Your task to perform on an android device: Search for "usb-a to usb-b" on ebay.com, select the first entry, and add it to the cart. Image 0: 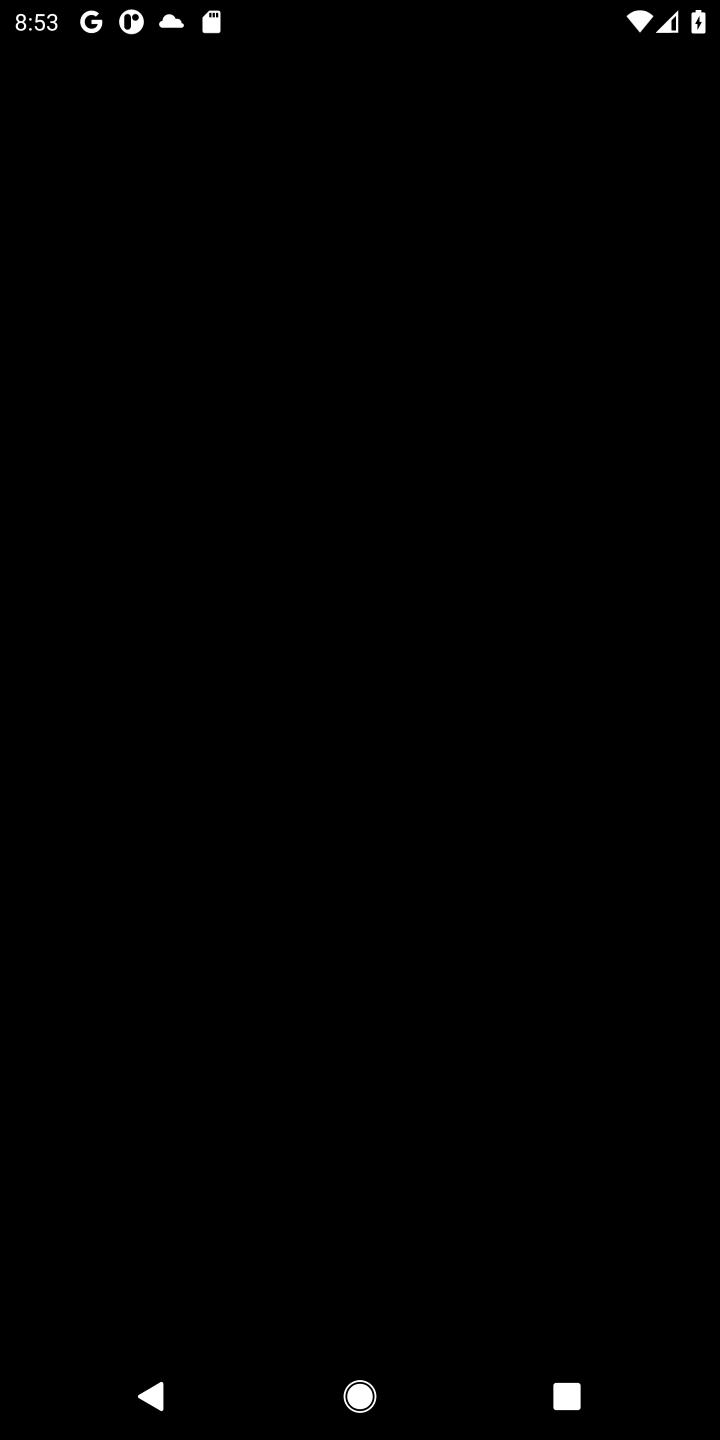
Step 0: press home button
Your task to perform on an android device: Search for "usb-a to usb-b" on ebay.com, select the first entry, and add it to the cart. Image 1: 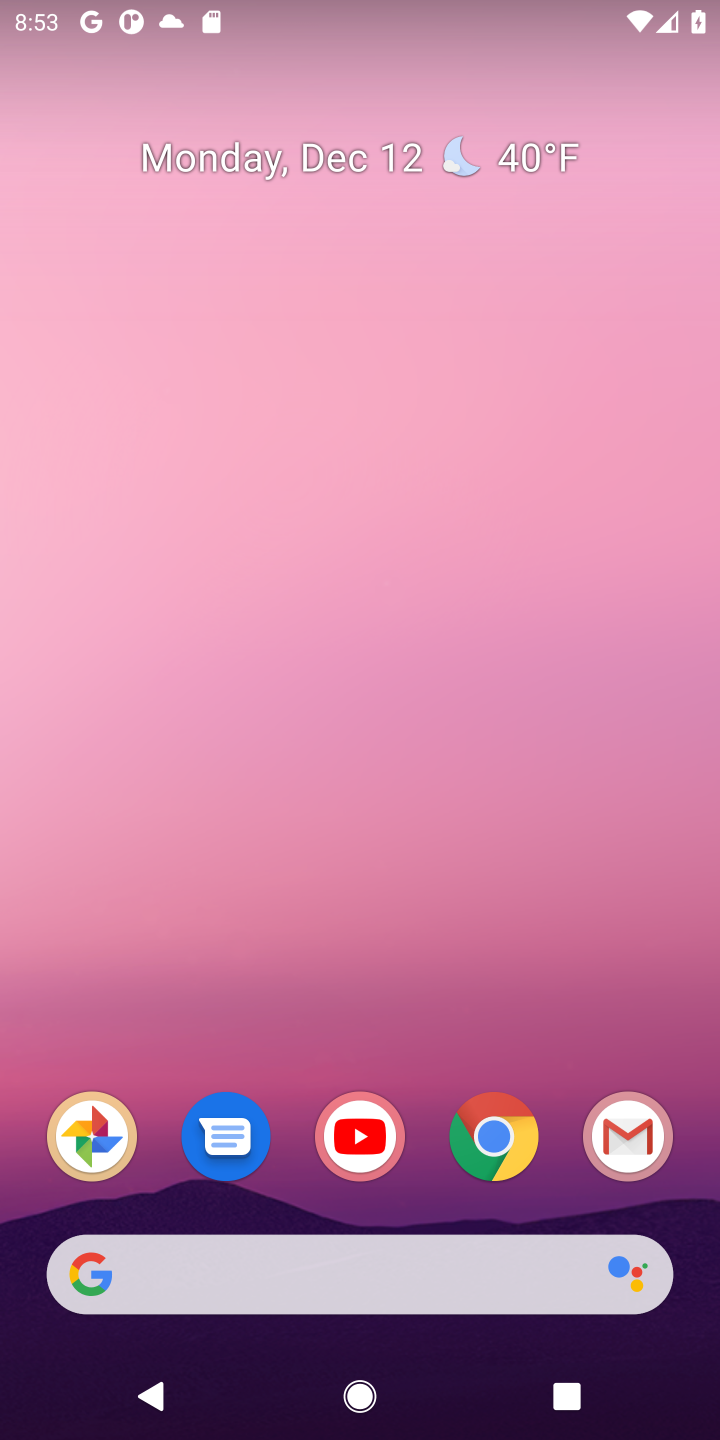
Step 1: click (497, 1138)
Your task to perform on an android device: Search for "usb-a to usb-b" on ebay.com, select the first entry, and add it to the cart. Image 2: 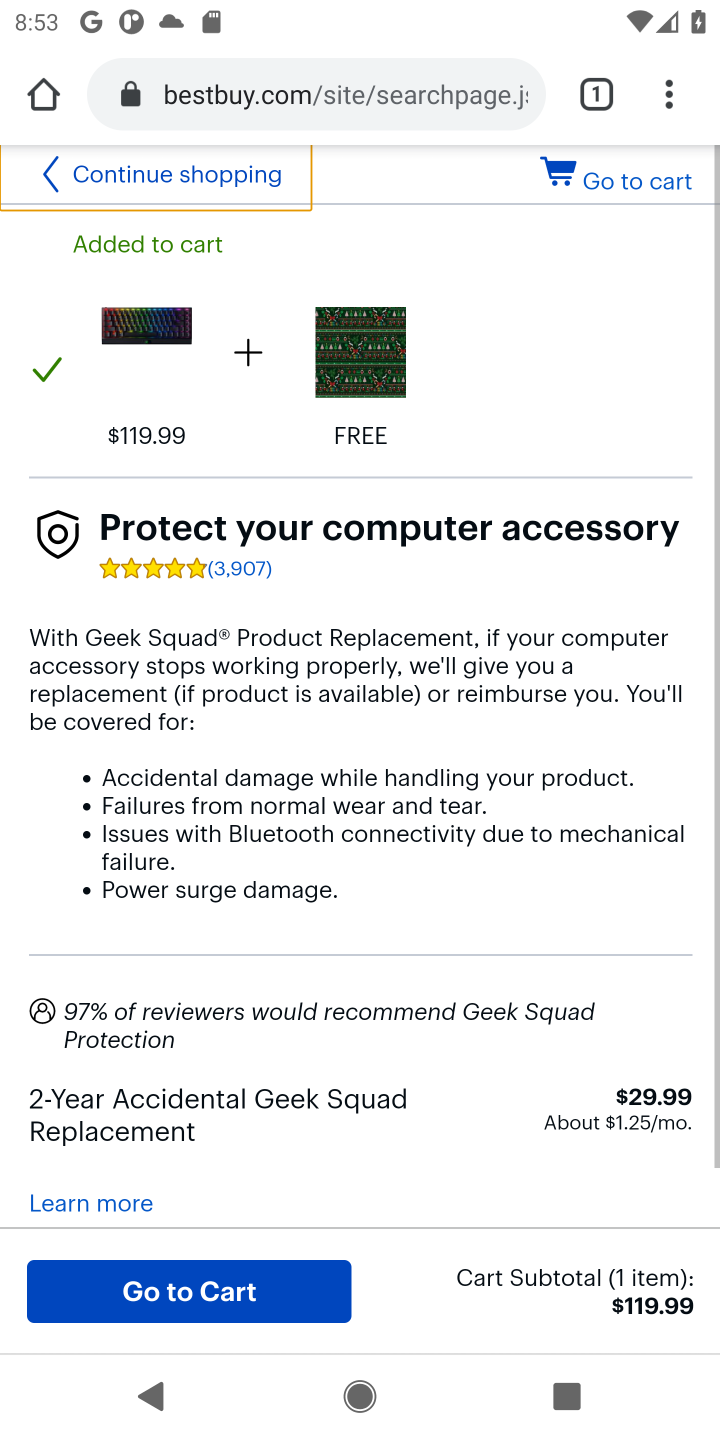
Step 2: click (248, 83)
Your task to perform on an android device: Search for "usb-a to usb-b" on ebay.com, select the first entry, and add it to the cart. Image 3: 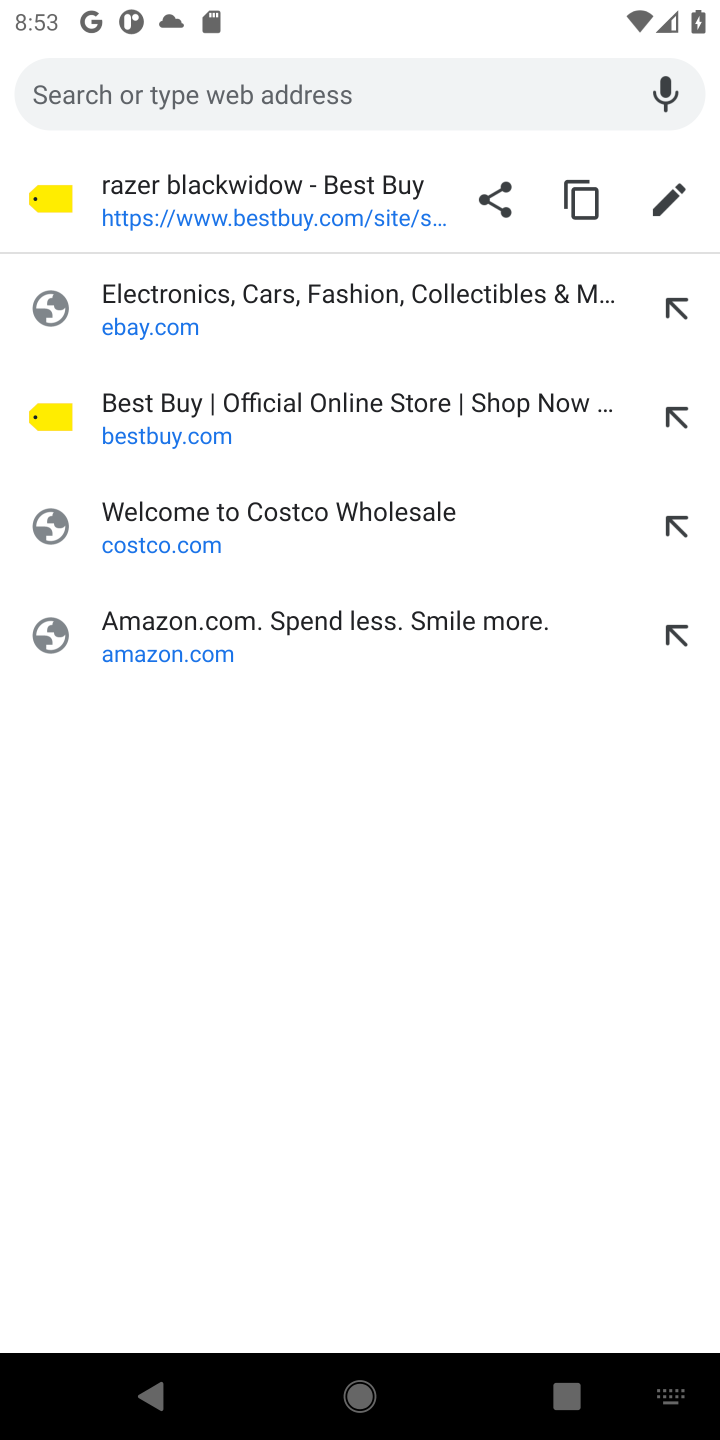
Step 3: click (151, 310)
Your task to perform on an android device: Search for "usb-a to usb-b" on ebay.com, select the first entry, and add it to the cart. Image 4: 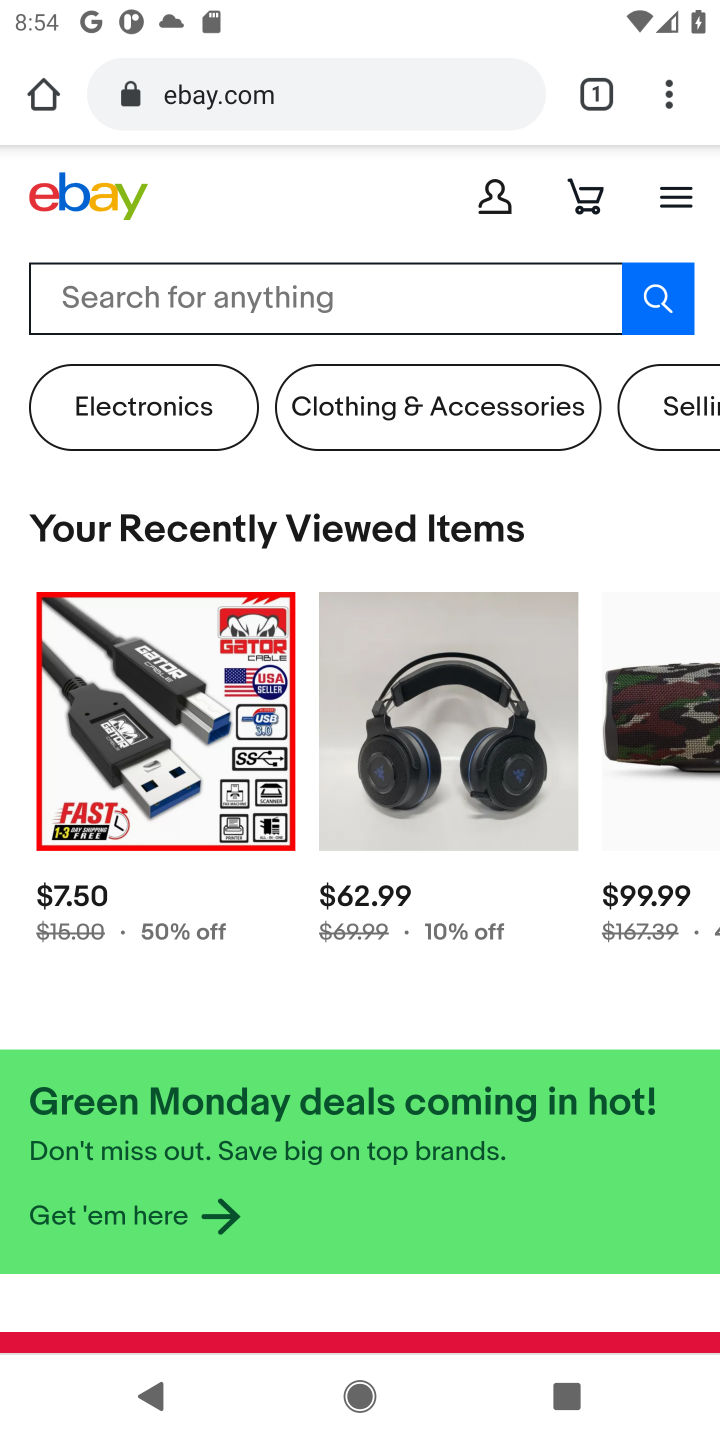
Step 4: click (169, 313)
Your task to perform on an android device: Search for "usb-a to usb-b" on ebay.com, select the first entry, and add it to the cart. Image 5: 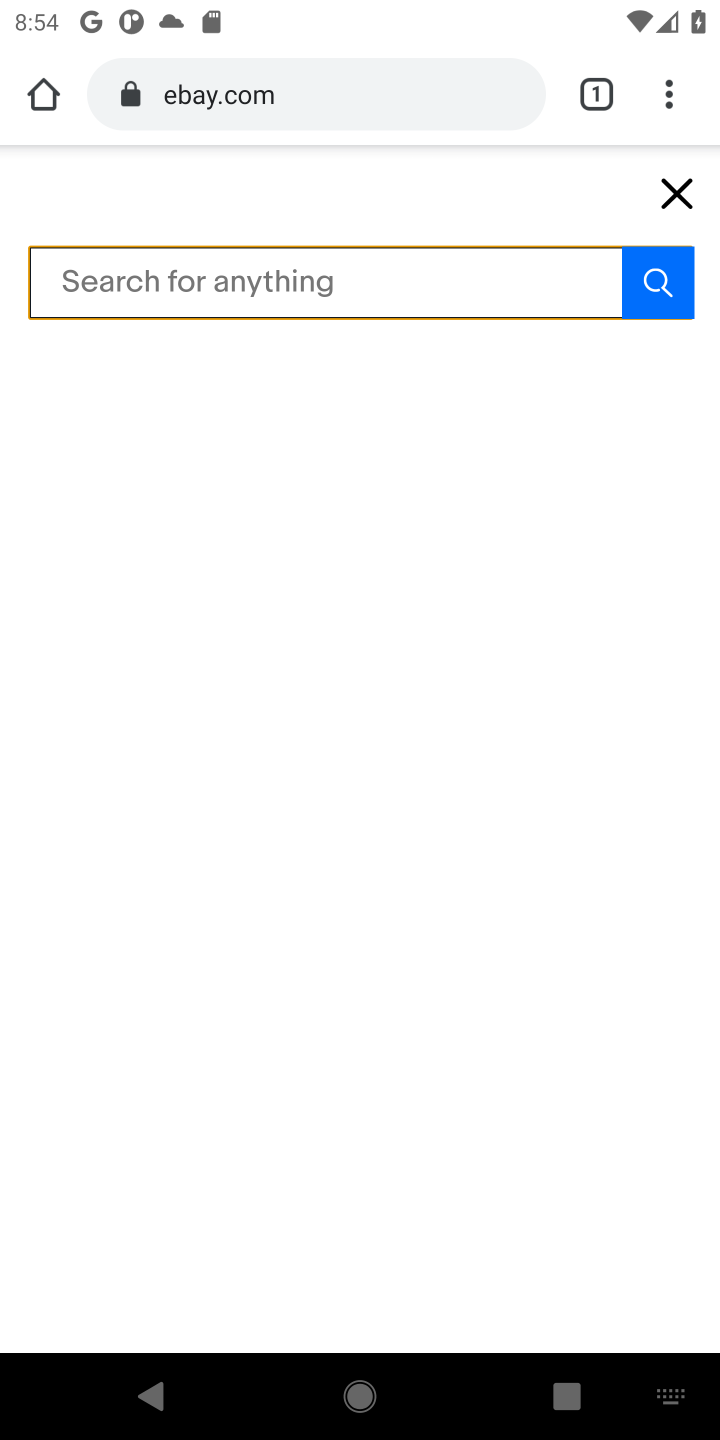
Step 5: type "usb-a to usb-b"
Your task to perform on an android device: Search for "usb-a to usb-b" on ebay.com, select the first entry, and add it to the cart. Image 6: 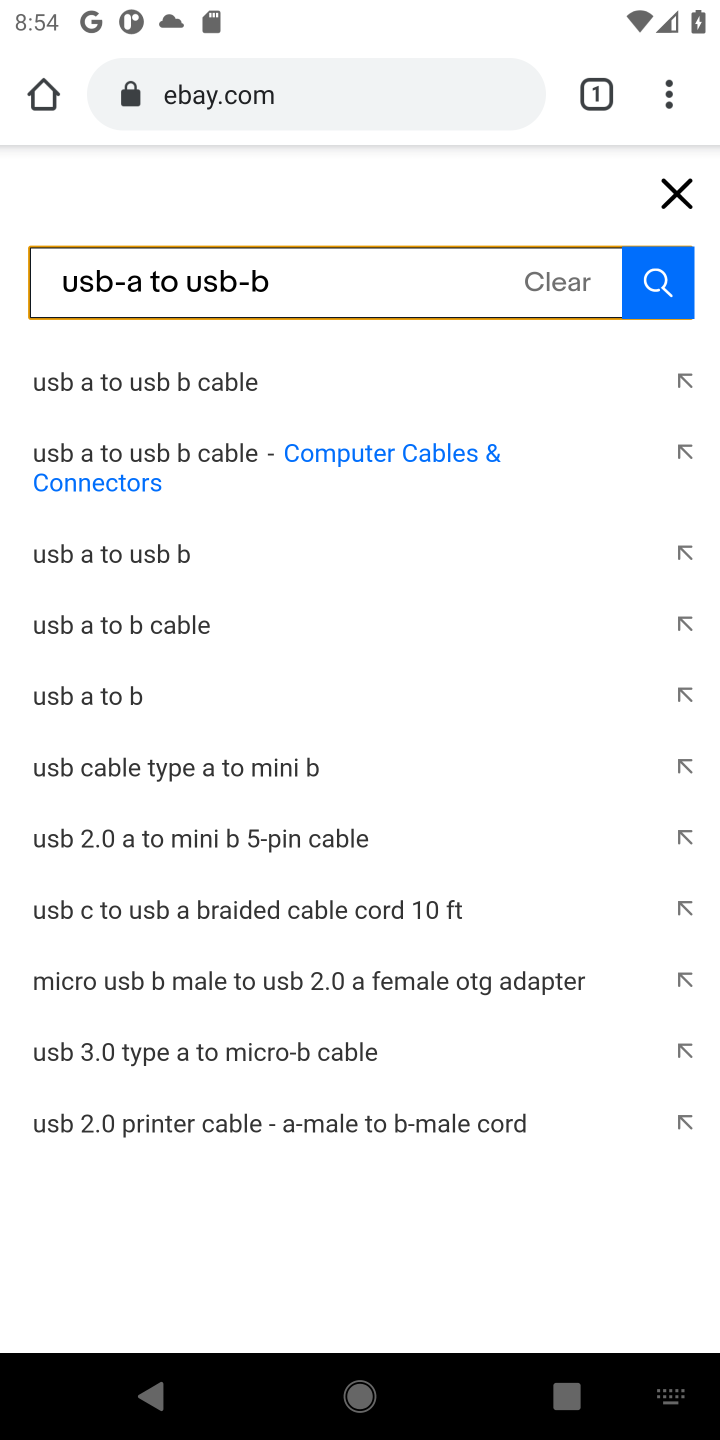
Step 6: click (658, 296)
Your task to perform on an android device: Search for "usb-a to usb-b" on ebay.com, select the first entry, and add it to the cart. Image 7: 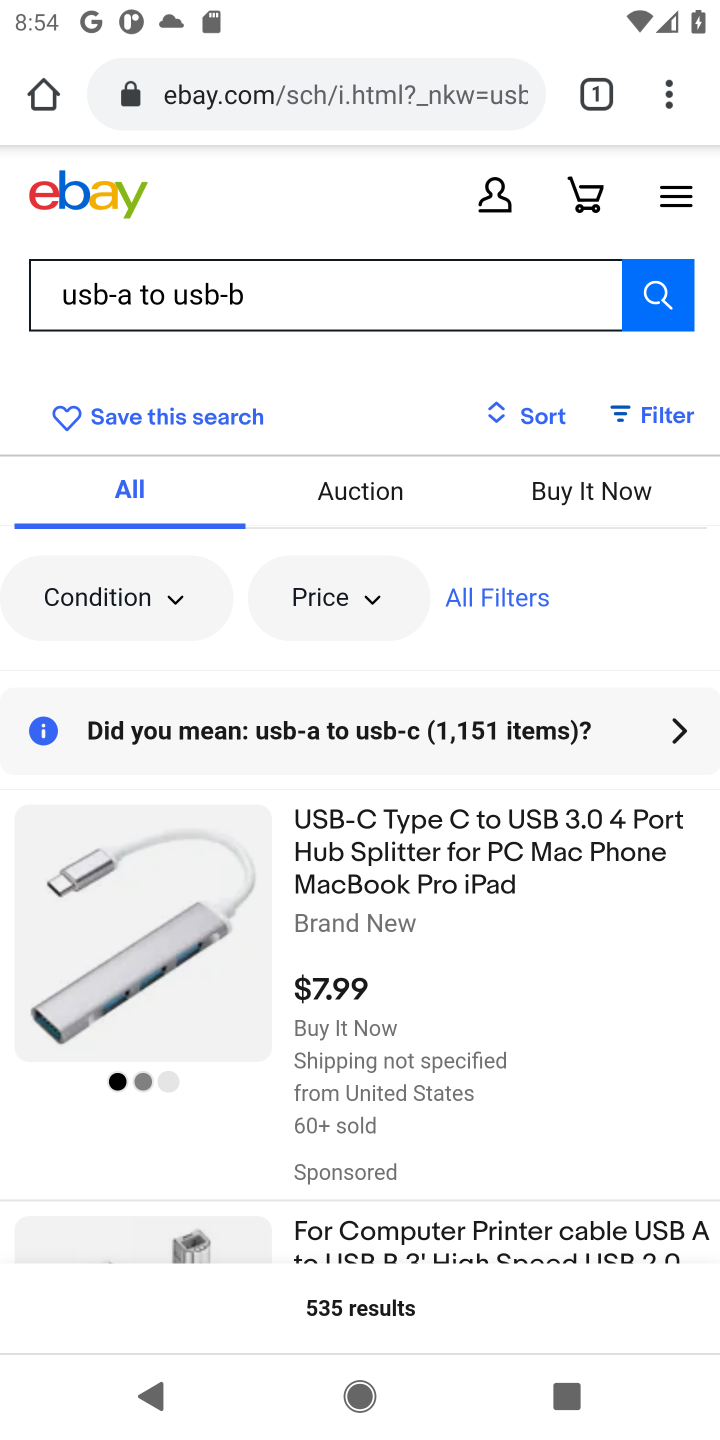
Step 7: task complete